Your task to perform on an android device: change the clock display to show seconds Image 0: 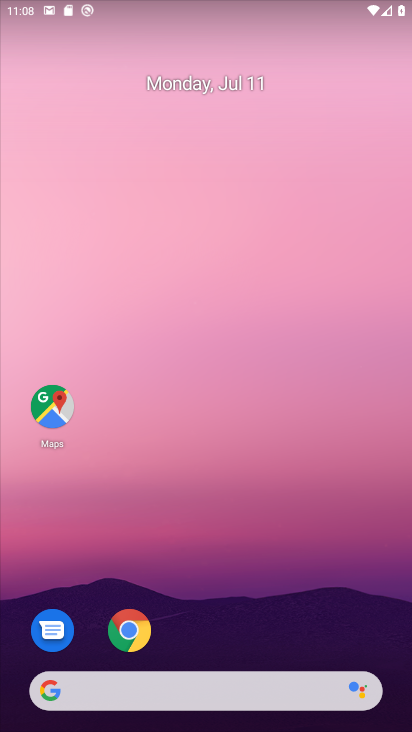
Step 0: drag from (245, 623) to (313, 288)
Your task to perform on an android device: change the clock display to show seconds Image 1: 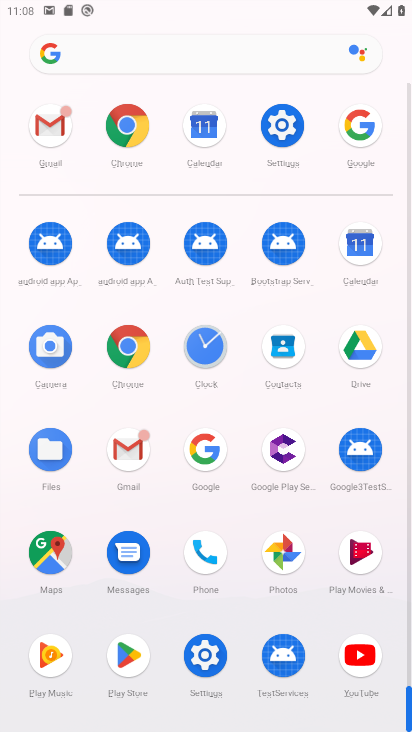
Step 1: click (198, 355)
Your task to perform on an android device: change the clock display to show seconds Image 2: 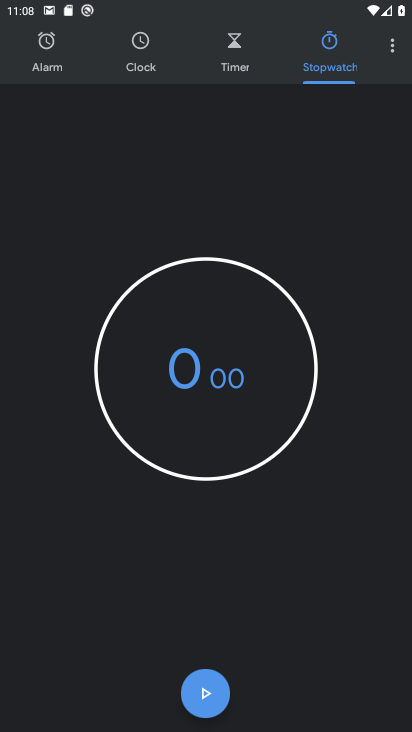
Step 2: click (390, 48)
Your task to perform on an android device: change the clock display to show seconds Image 3: 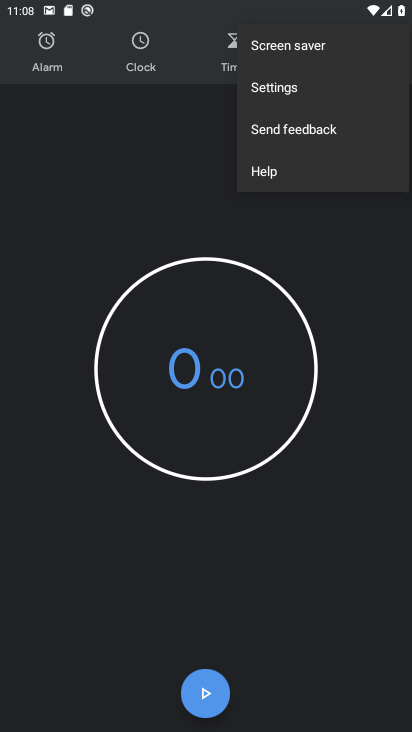
Step 3: click (298, 89)
Your task to perform on an android device: change the clock display to show seconds Image 4: 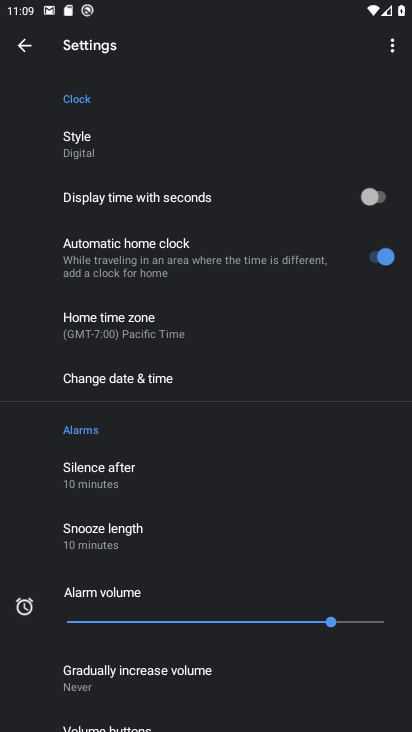
Step 4: click (172, 198)
Your task to perform on an android device: change the clock display to show seconds Image 5: 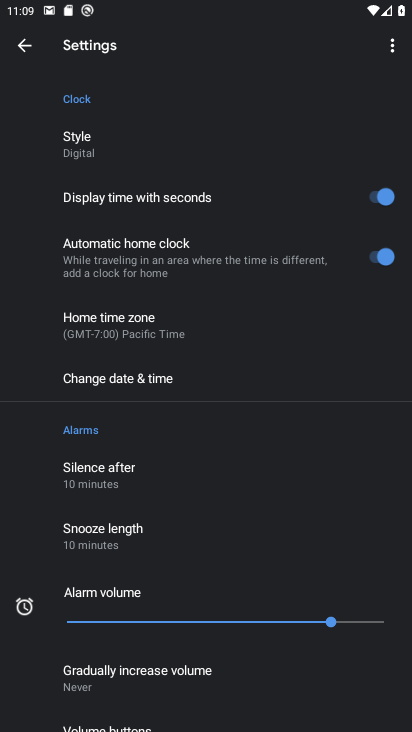
Step 5: task complete